Your task to perform on an android device: Go to network settings Image 0: 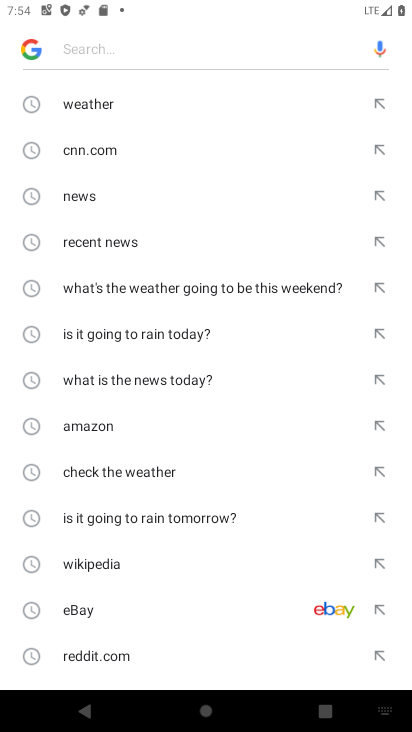
Step 0: press back button
Your task to perform on an android device: Go to network settings Image 1: 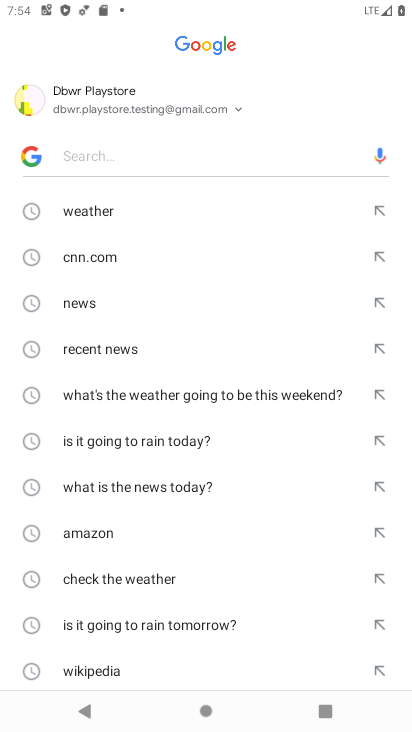
Step 1: press back button
Your task to perform on an android device: Go to network settings Image 2: 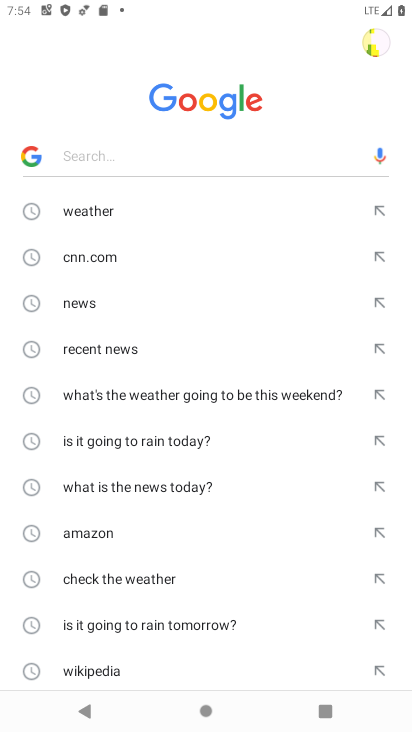
Step 2: press back button
Your task to perform on an android device: Go to network settings Image 3: 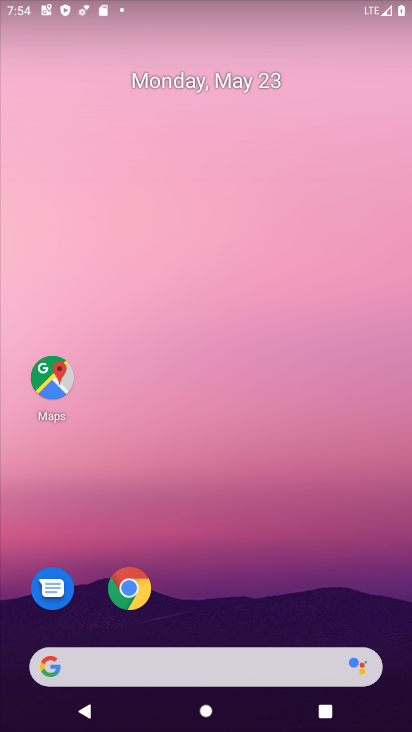
Step 3: drag from (395, 709) to (326, 125)
Your task to perform on an android device: Go to network settings Image 4: 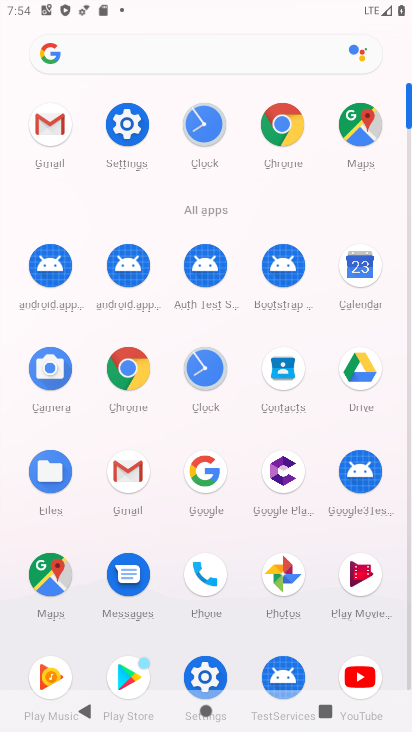
Step 4: click (141, 121)
Your task to perform on an android device: Go to network settings Image 5: 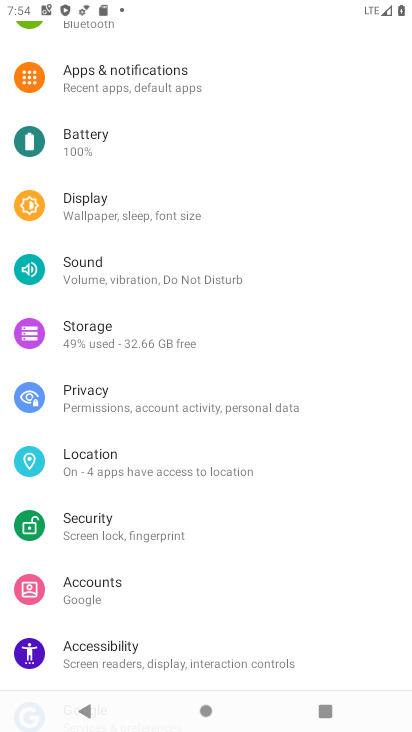
Step 5: drag from (264, 111) to (255, 554)
Your task to perform on an android device: Go to network settings Image 6: 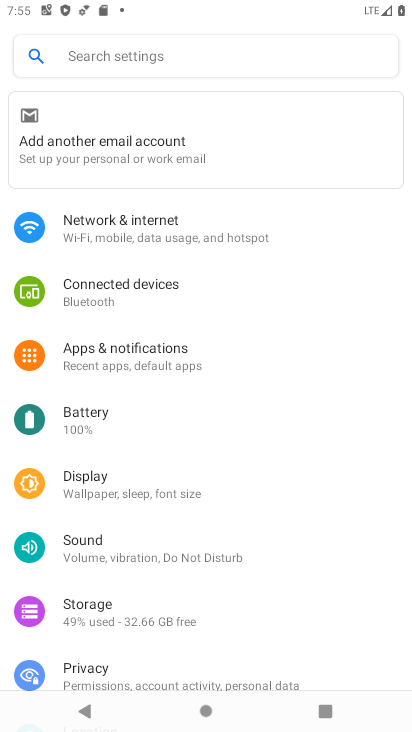
Step 6: click (109, 217)
Your task to perform on an android device: Go to network settings Image 7: 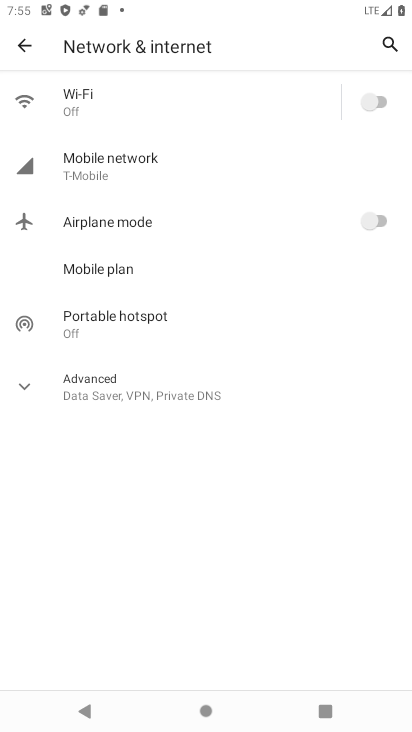
Step 7: click (74, 171)
Your task to perform on an android device: Go to network settings Image 8: 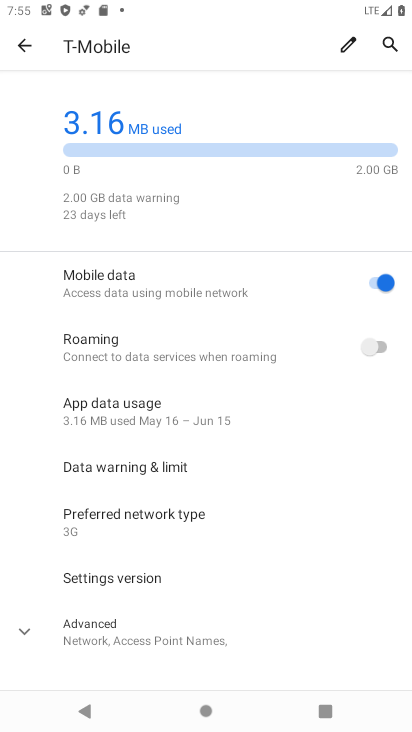
Step 8: task complete